Your task to perform on an android device: change the clock display to digital Image 0: 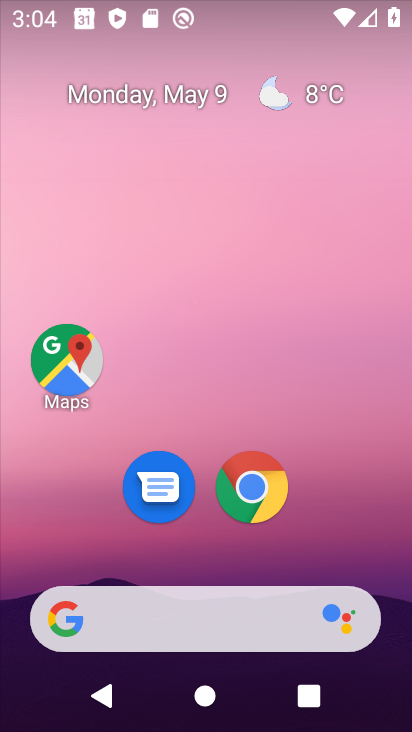
Step 0: drag from (213, 553) to (202, 78)
Your task to perform on an android device: change the clock display to digital Image 1: 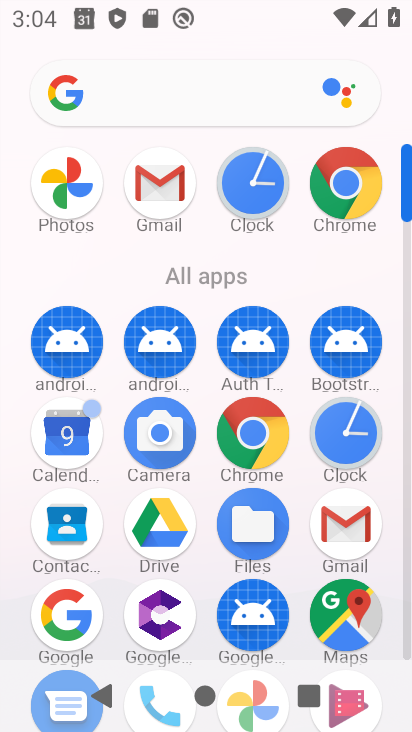
Step 1: click (344, 424)
Your task to perform on an android device: change the clock display to digital Image 2: 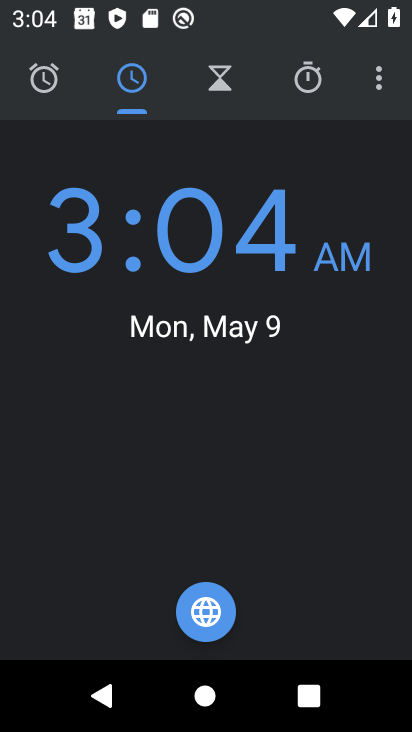
Step 2: click (379, 69)
Your task to perform on an android device: change the clock display to digital Image 3: 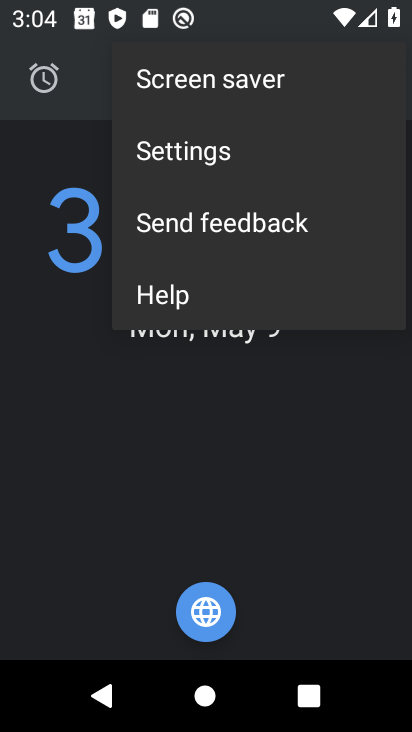
Step 3: click (246, 154)
Your task to perform on an android device: change the clock display to digital Image 4: 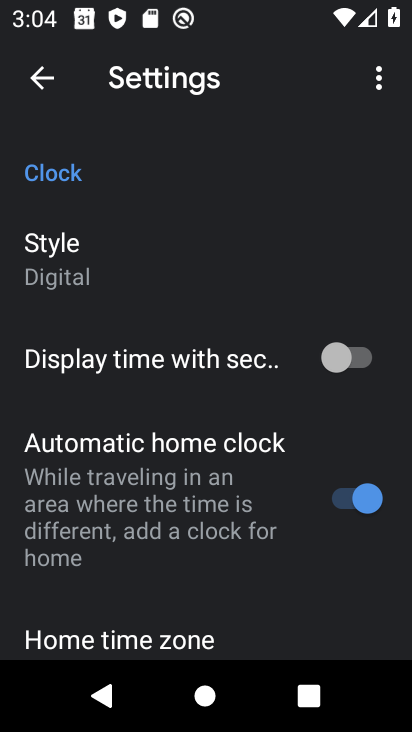
Step 4: task complete